Your task to perform on an android device: Search for "usb-a to usb-b" on newegg.com, select the first entry, and add it to the cart. Image 0: 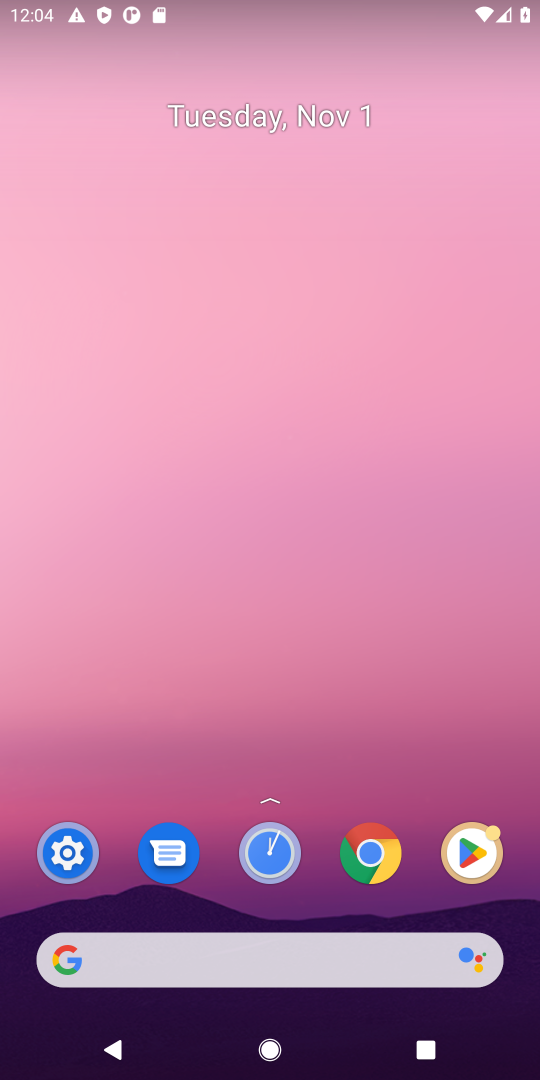
Step 0: click (214, 956)
Your task to perform on an android device: Search for "usb-a to usb-b" on newegg.com, select the first entry, and add it to the cart. Image 1: 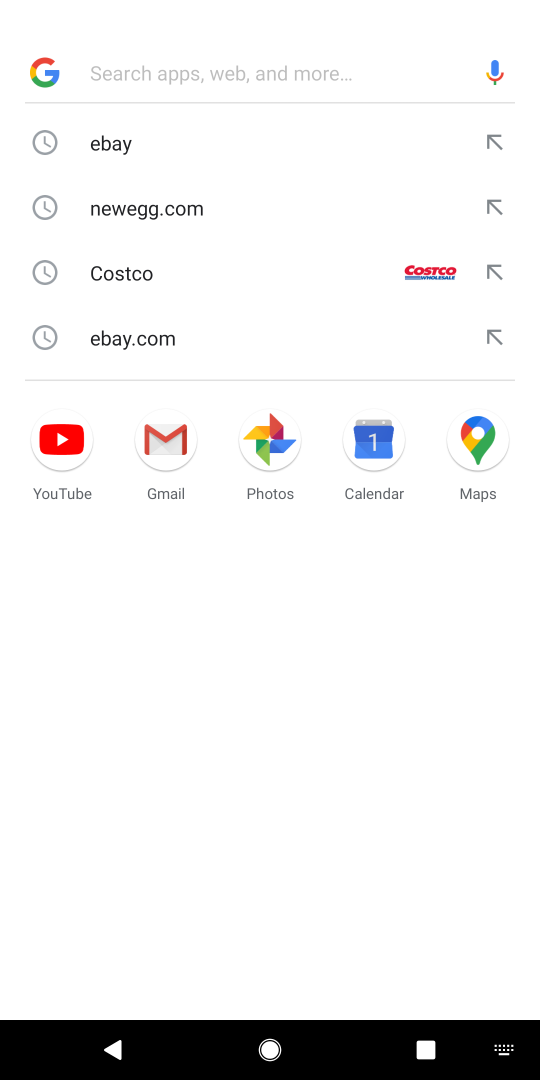
Step 1: click (179, 208)
Your task to perform on an android device: Search for "usb-a to usb-b" on newegg.com, select the first entry, and add it to the cart. Image 2: 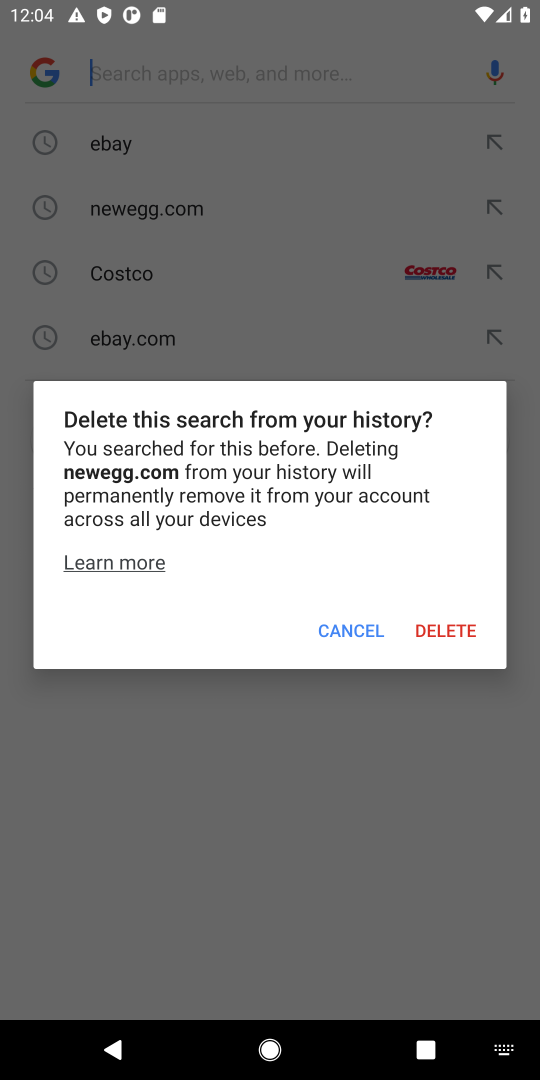
Step 2: click (353, 635)
Your task to perform on an android device: Search for "usb-a to usb-b" on newegg.com, select the first entry, and add it to the cart. Image 3: 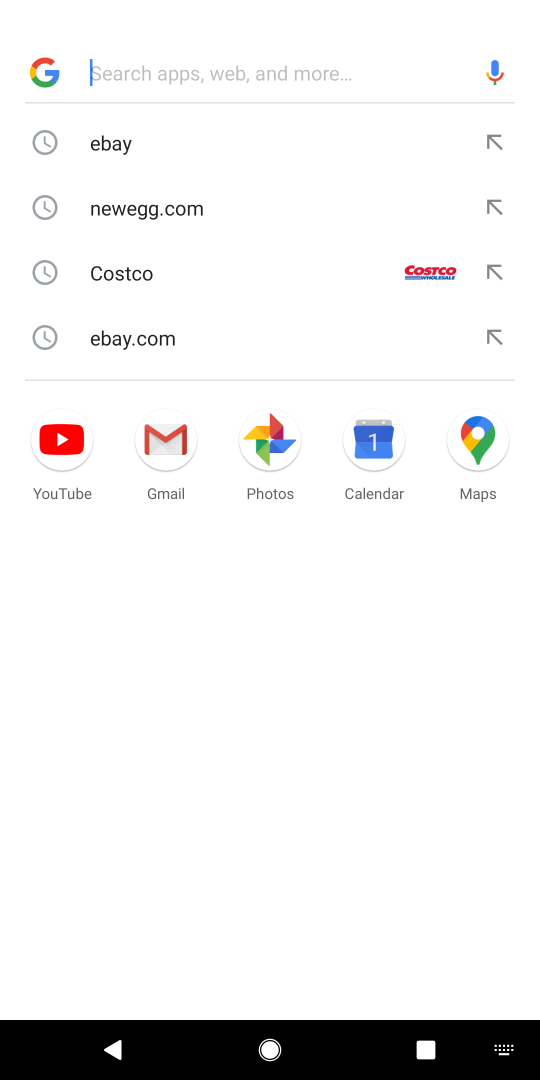
Step 3: click (142, 210)
Your task to perform on an android device: Search for "usb-a to usb-b" on newegg.com, select the first entry, and add it to the cart. Image 4: 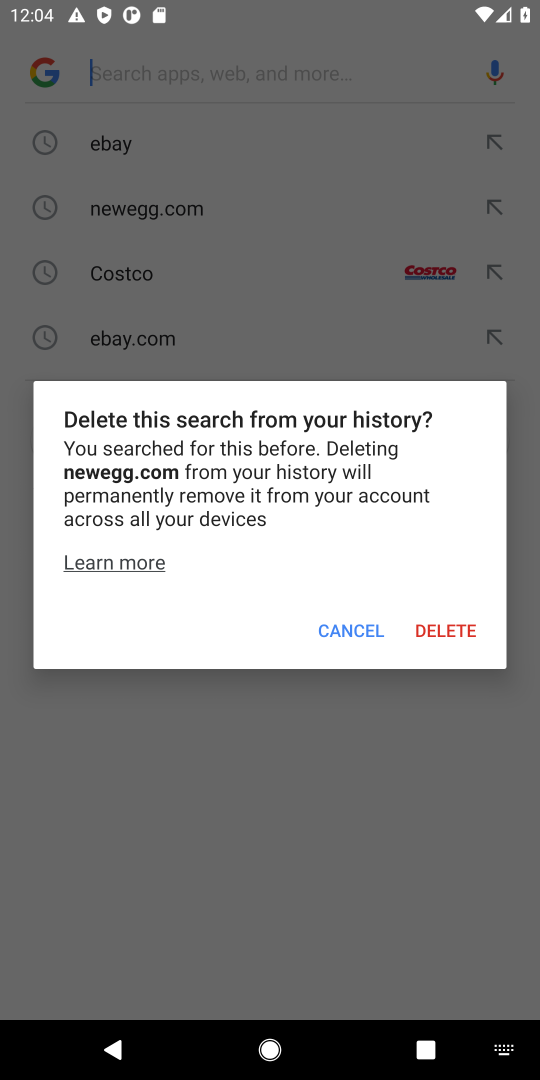
Step 4: click (142, 210)
Your task to perform on an android device: Search for "usb-a to usb-b" on newegg.com, select the first entry, and add it to the cart. Image 5: 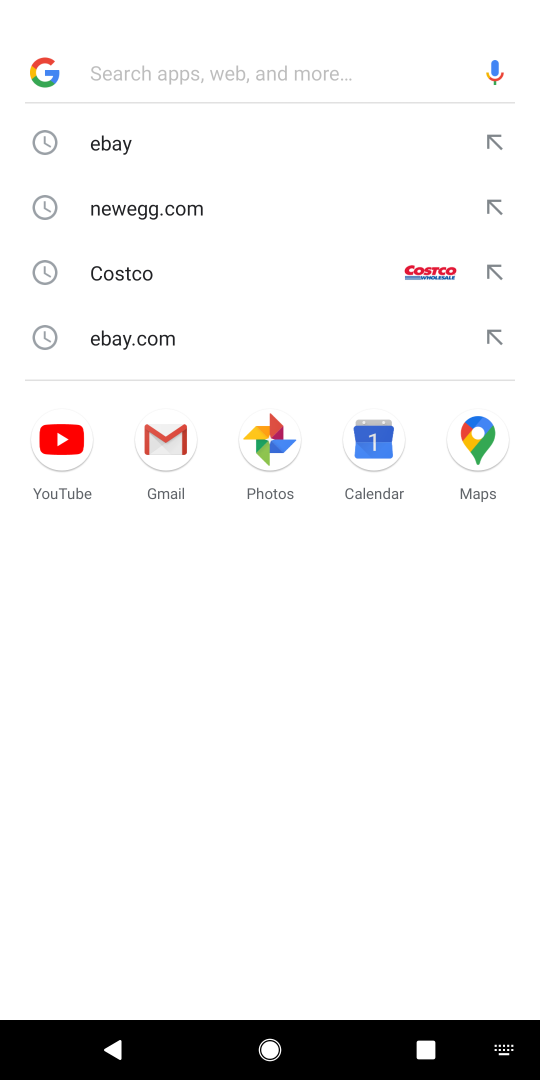
Step 5: click (360, 627)
Your task to perform on an android device: Search for "usb-a to usb-b" on newegg.com, select the first entry, and add it to the cart. Image 6: 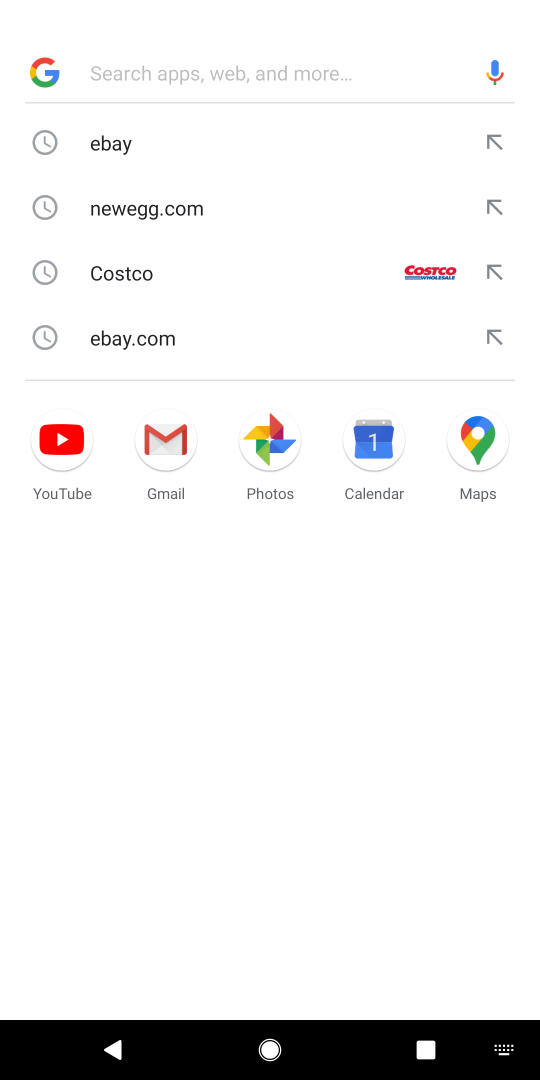
Step 6: click (194, 214)
Your task to perform on an android device: Search for "usb-a to usb-b" on newegg.com, select the first entry, and add it to the cart. Image 7: 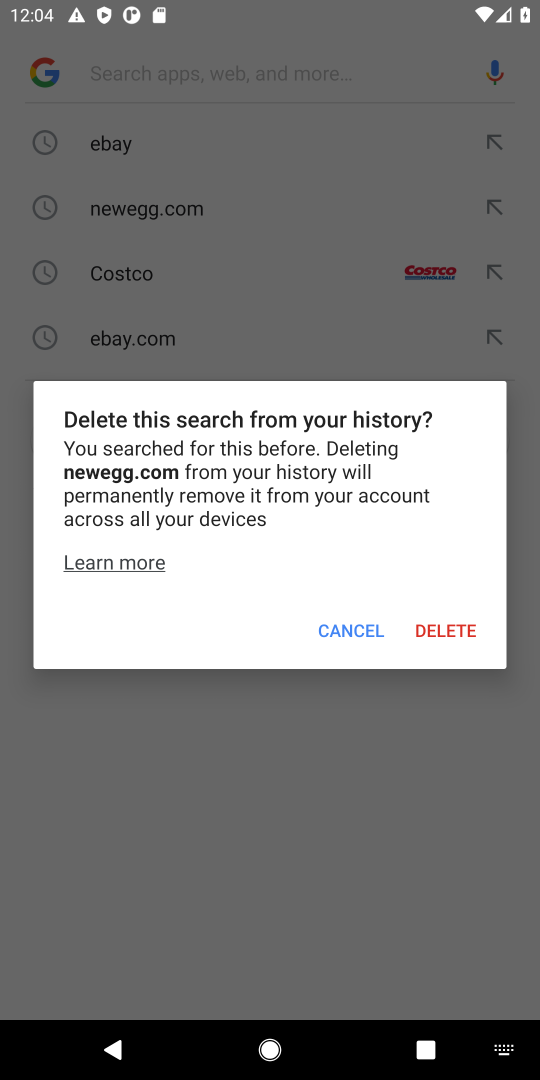
Step 7: click (360, 627)
Your task to perform on an android device: Search for "usb-a to usb-b" on newegg.com, select the first entry, and add it to the cart. Image 8: 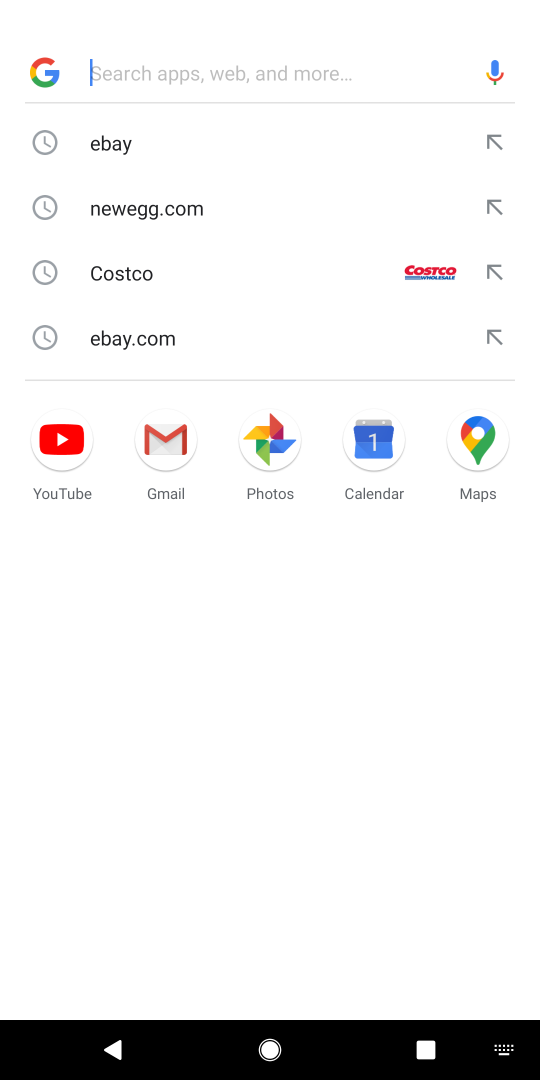
Step 8: click (162, 218)
Your task to perform on an android device: Search for "usb-a to usb-b" on newegg.com, select the first entry, and add it to the cart. Image 9: 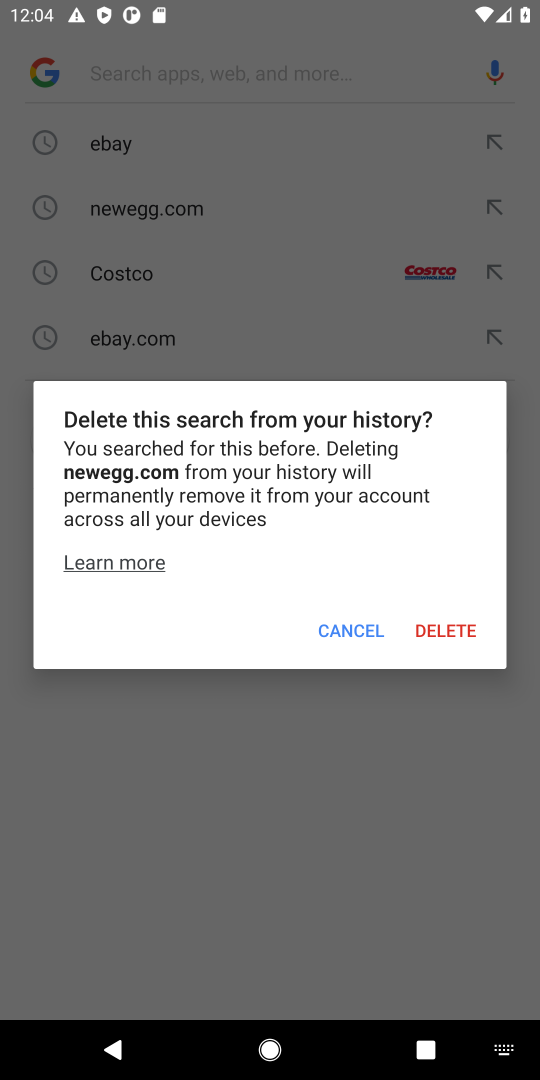
Step 9: click (353, 627)
Your task to perform on an android device: Search for "usb-a to usb-b" on newegg.com, select the first entry, and add it to the cart. Image 10: 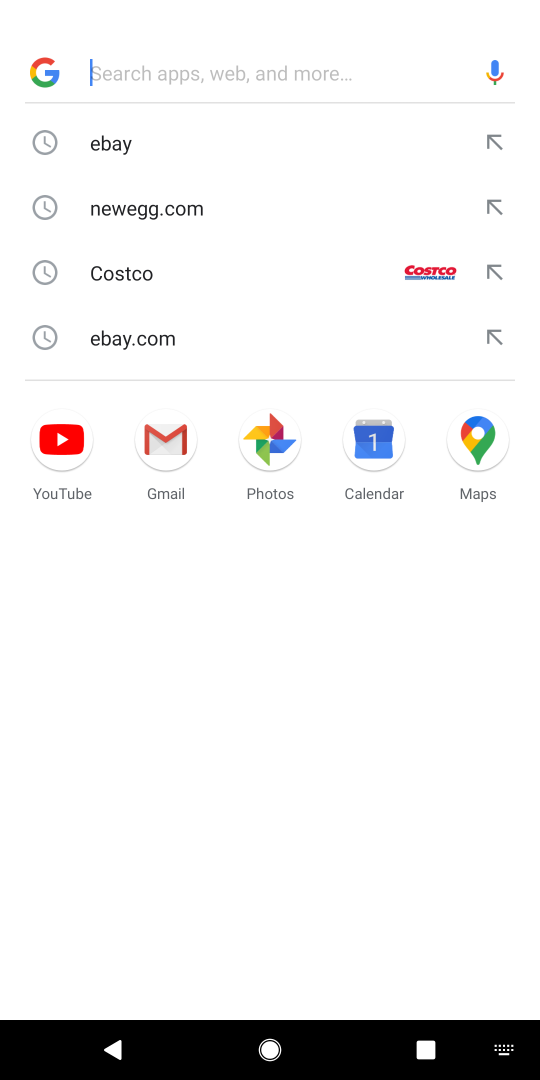
Step 10: click (145, 217)
Your task to perform on an android device: Search for "usb-a to usb-b" on newegg.com, select the first entry, and add it to the cart. Image 11: 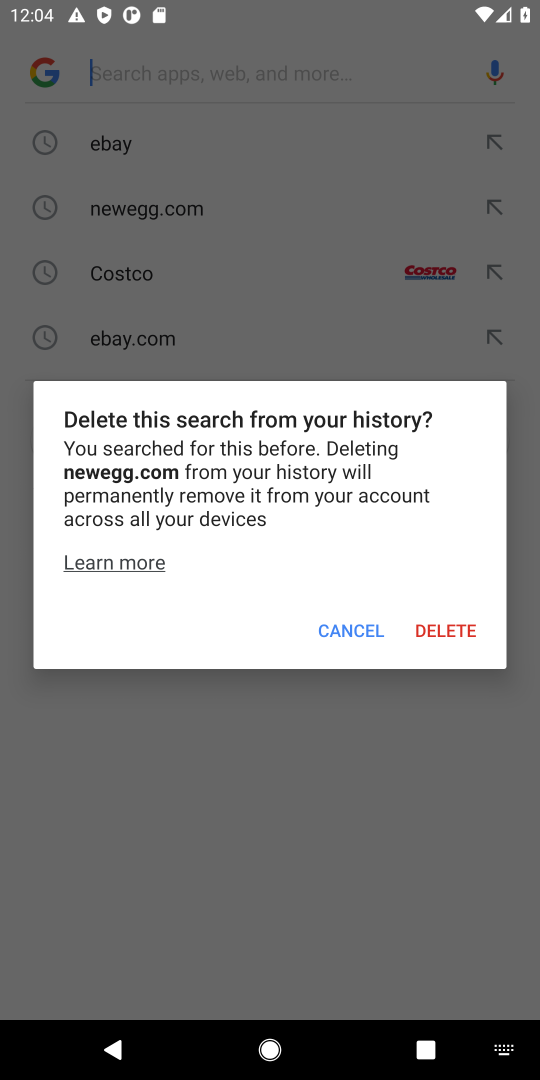
Step 11: click (449, 633)
Your task to perform on an android device: Search for "usb-a to usb-b" on newegg.com, select the first entry, and add it to the cart. Image 12: 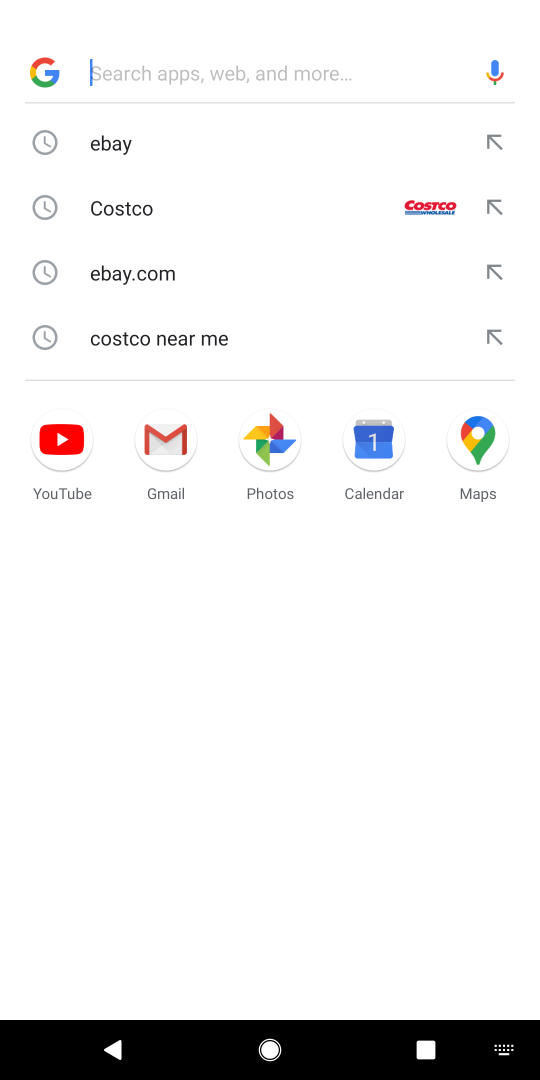
Step 12: click (355, 638)
Your task to perform on an android device: Search for "usb-a to usb-b" on newegg.com, select the first entry, and add it to the cart. Image 13: 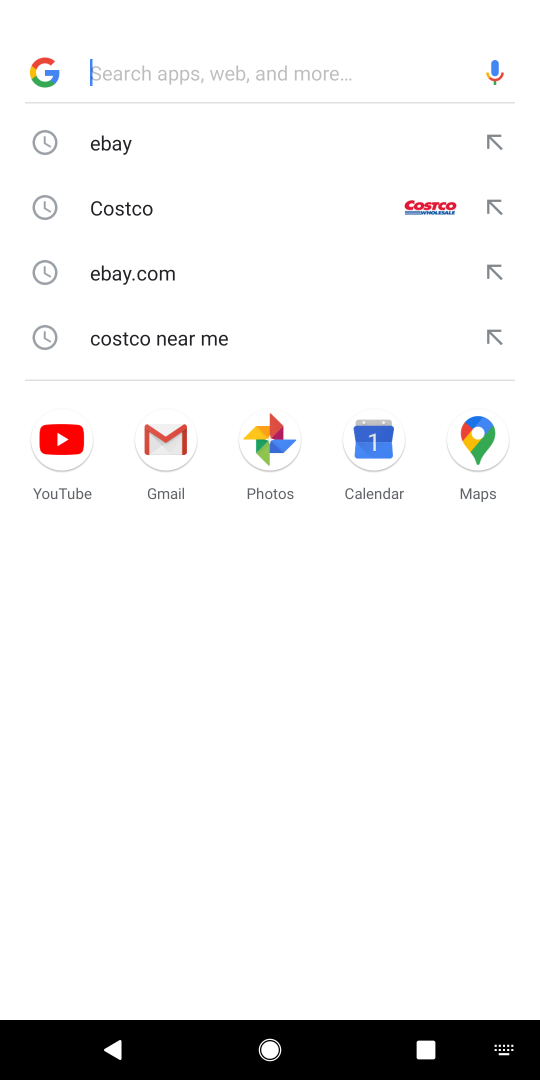
Step 13: type "newegg.com"
Your task to perform on an android device: Search for "usb-a to usb-b" on newegg.com, select the first entry, and add it to the cart. Image 14: 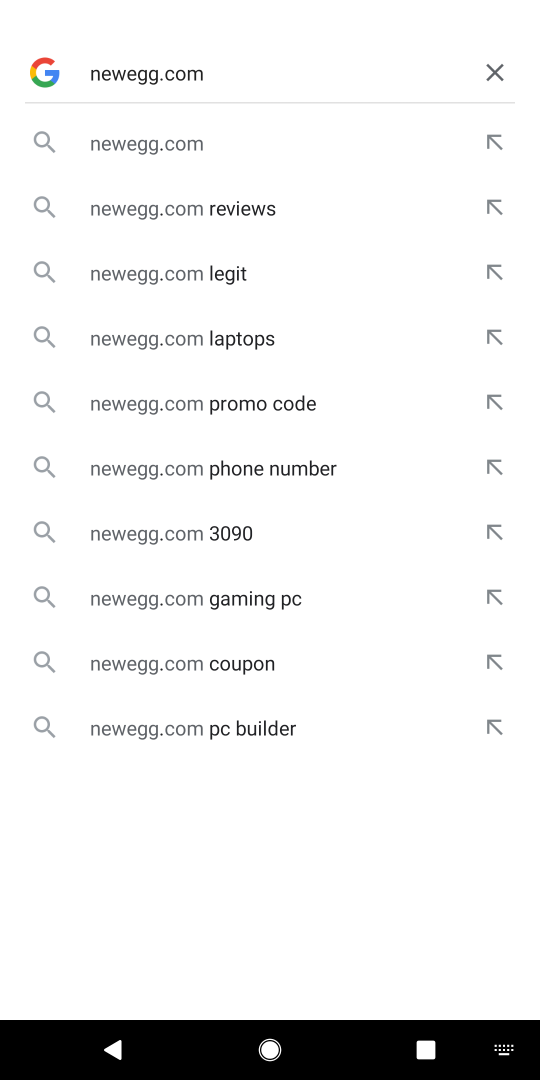
Step 14: type ""
Your task to perform on an android device: Search for "usb-a to usb-b" on newegg.com, select the first entry, and add it to the cart. Image 15: 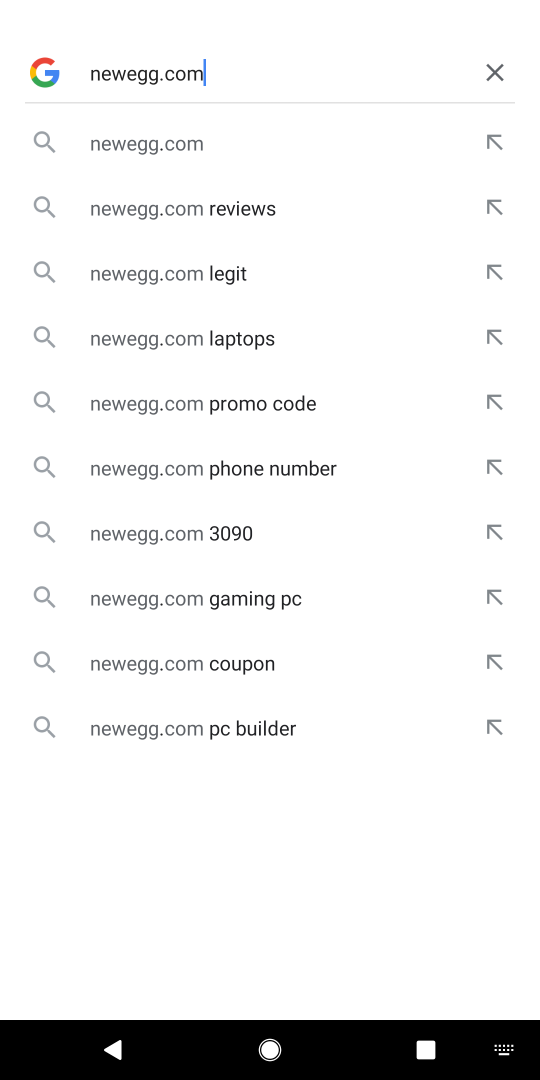
Step 15: type ""
Your task to perform on an android device: Search for "usb-a to usb-b" on newegg.com, select the first entry, and add it to the cart. Image 16: 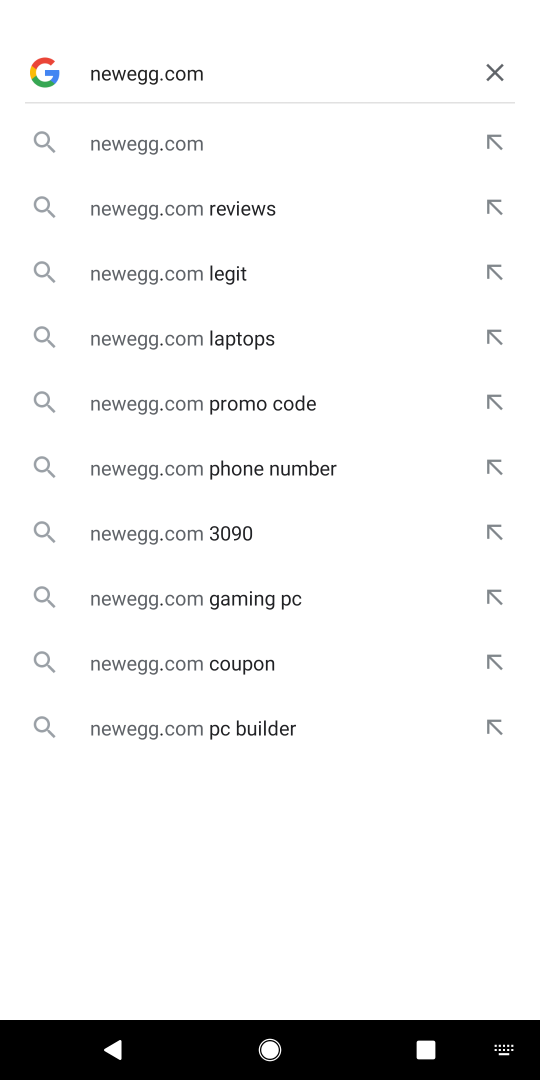
Step 16: press enter
Your task to perform on an android device: Search for "usb-a to usb-b" on newegg.com, select the first entry, and add it to the cart. Image 17: 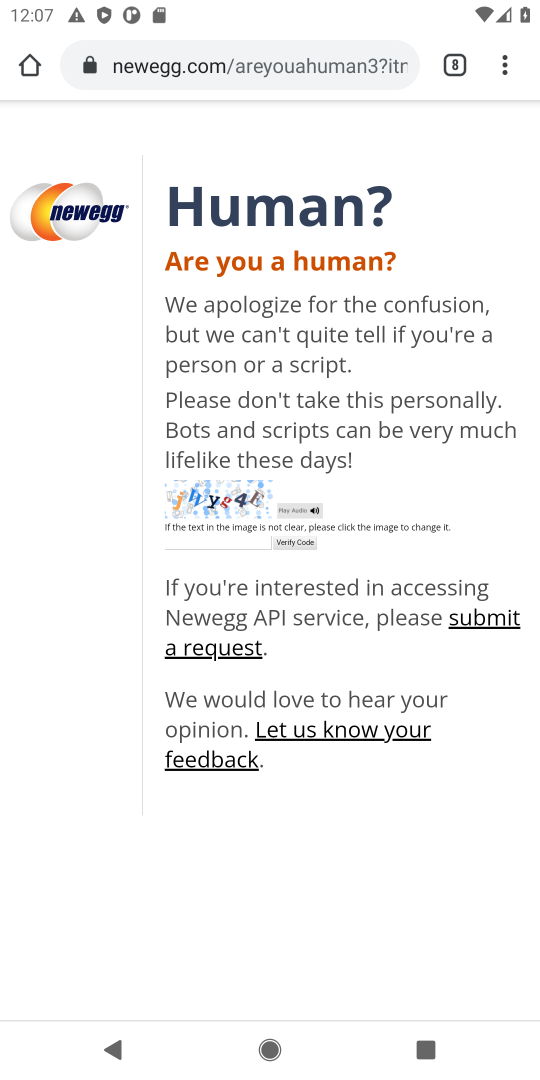
Step 17: task complete